Your task to perform on an android device: Go to eBay Image 0: 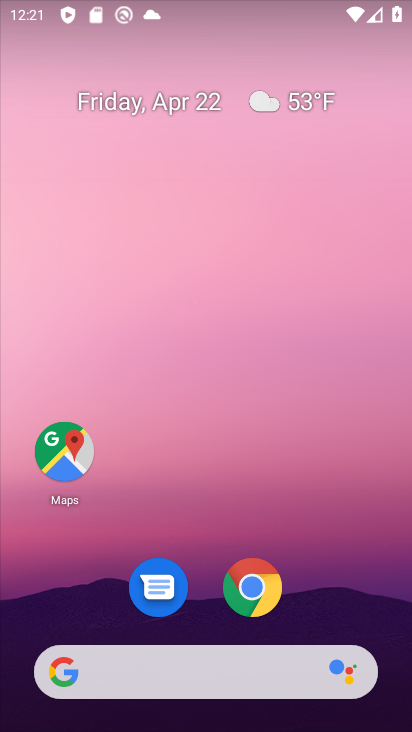
Step 0: drag from (327, 581) to (317, 68)
Your task to perform on an android device: Go to eBay Image 1: 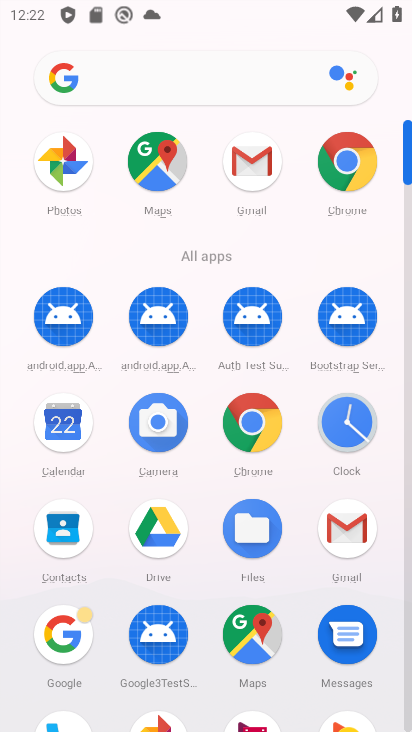
Step 1: click (251, 423)
Your task to perform on an android device: Go to eBay Image 2: 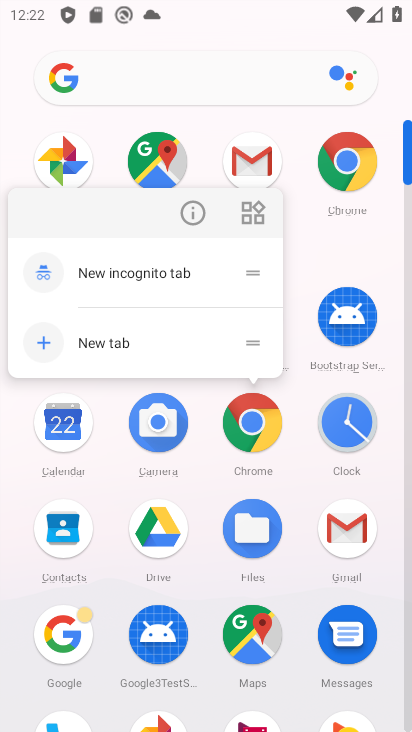
Step 2: click (356, 155)
Your task to perform on an android device: Go to eBay Image 3: 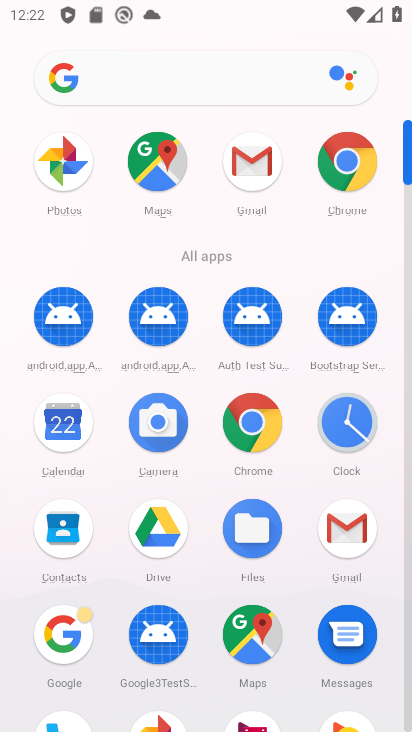
Step 3: click (253, 422)
Your task to perform on an android device: Go to eBay Image 4: 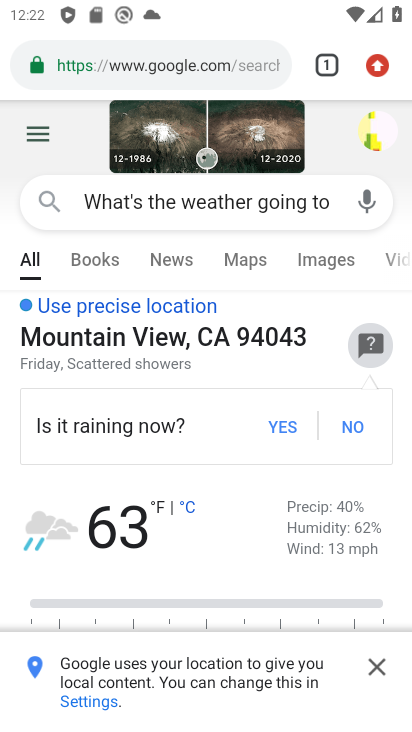
Step 4: click (267, 60)
Your task to perform on an android device: Go to eBay Image 5: 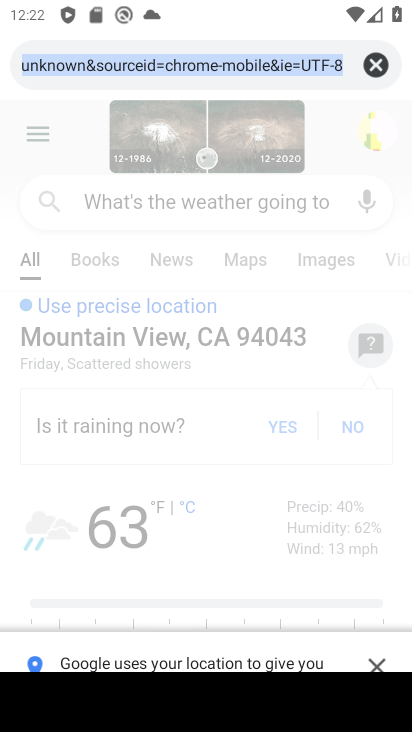
Step 5: click (375, 57)
Your task to perform on an android device: Go to eBay Image 6: 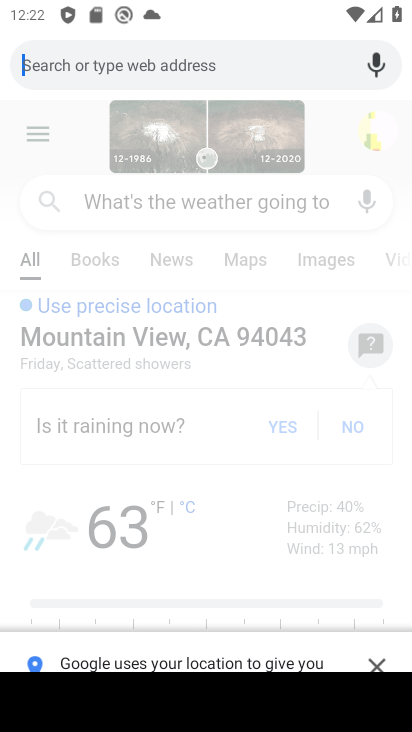
Step 6: type " eBay"
Your task to perform on an android device: Go to eBay Image 7: 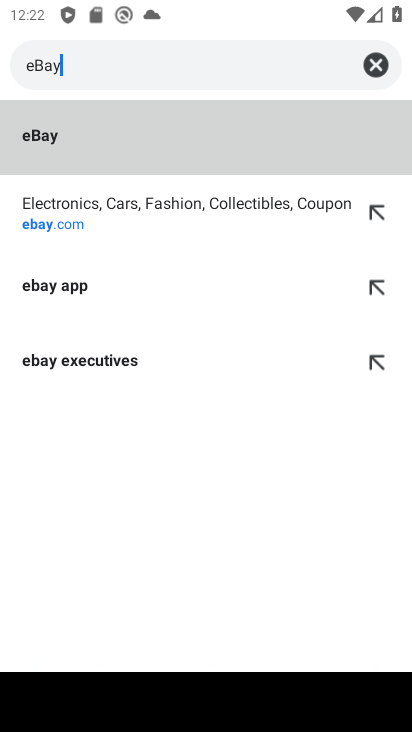
Step 7: click (45, 130)
Your task to perform on an android device: Go to eBay Image 8: 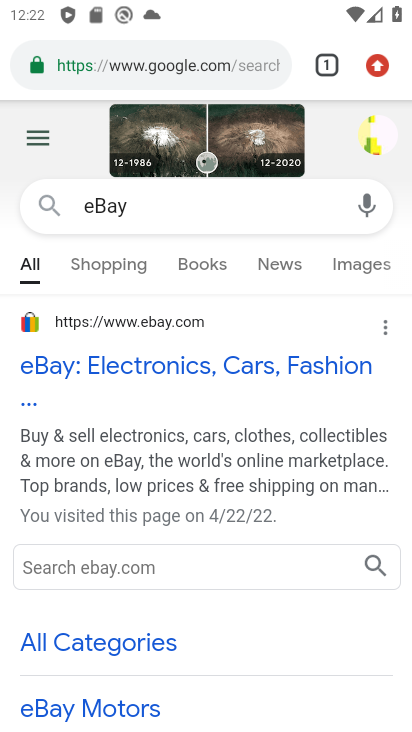
Step 8: task complete